Your task to perform on an android device: change the clock display to digital Image 0: 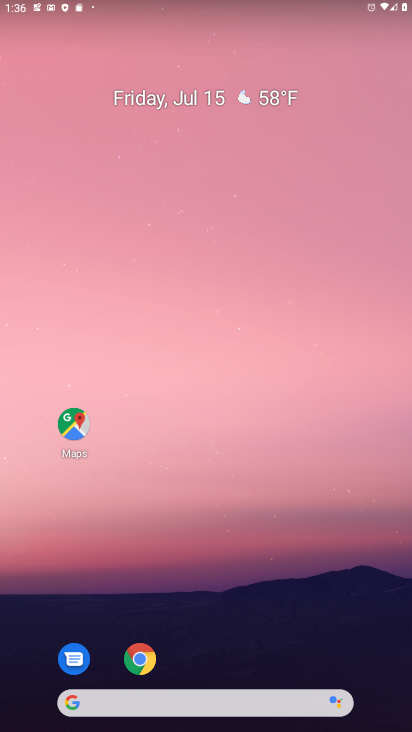
Step 0: drag from (226, 588) to (215, 51)
Your task to perform on an android device: change the clock display to digital Image 1: 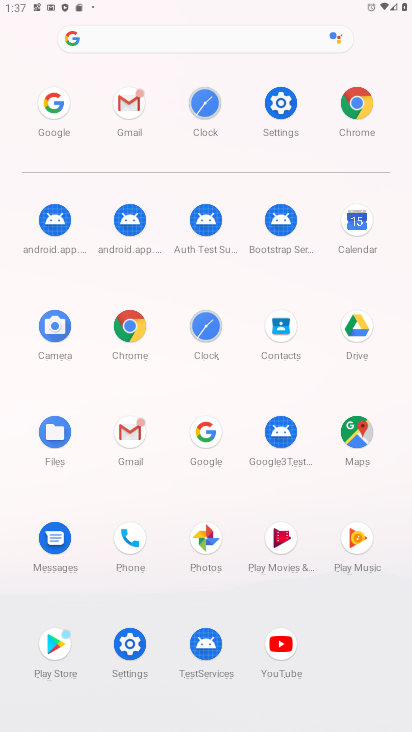
Step 1: click (207, 326)
Your task to perform on an android device: change the clock display to digital Image 2: 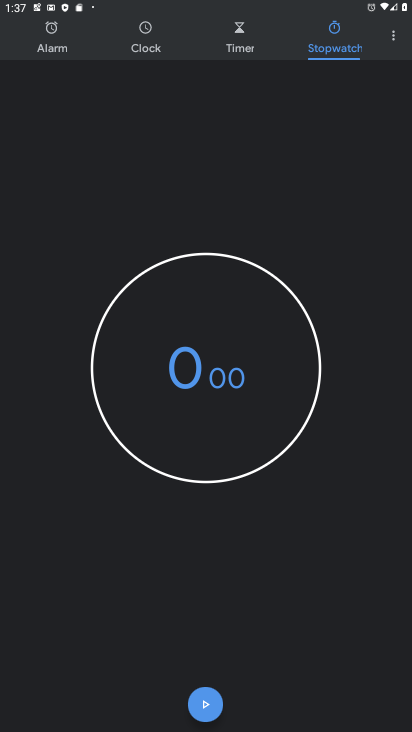
Step 2: click (392, 39)
Your task to perform on an android device: change the clock display to digital Image 3: 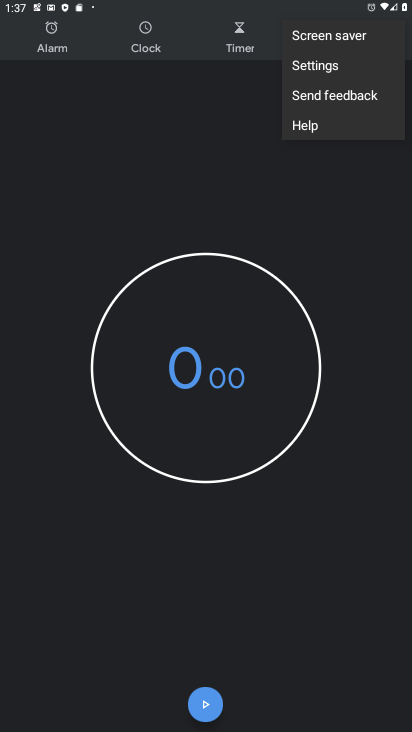
Step 3: click (317, 63)
Your task to perform on an android device: change the clock display to digital Image 4: 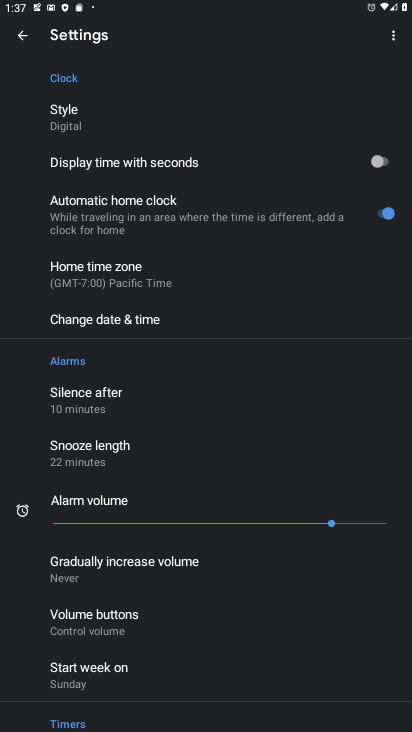
Step 4: task complete